Your task to perform on an android device: turn vacation reply on in the gmail app Image 0: 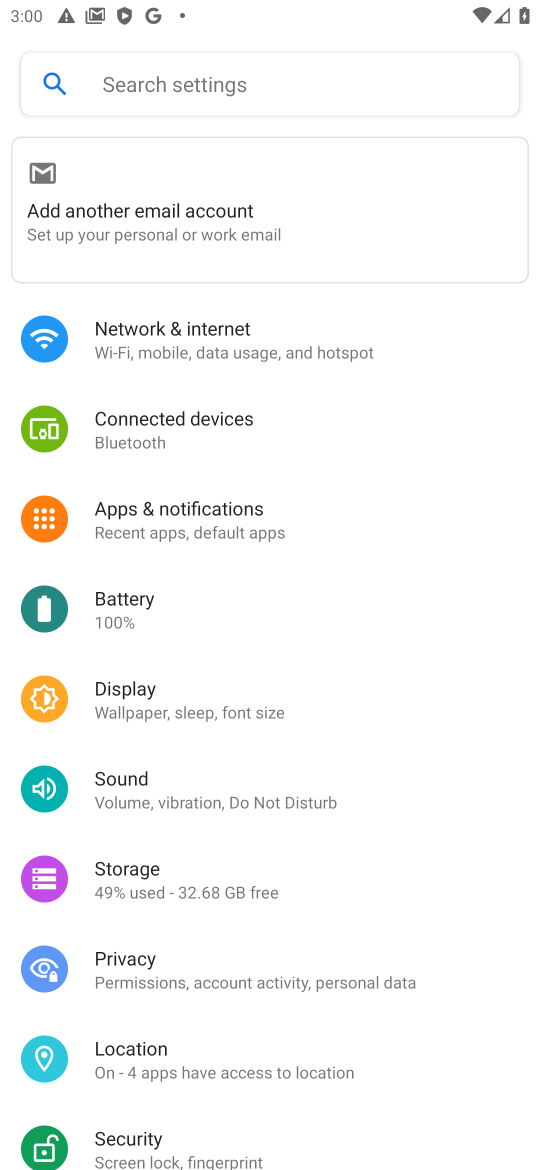
Step 0: press home button
Your task to perform on an android device: turn vacation reply on in the gmail app Image 1: 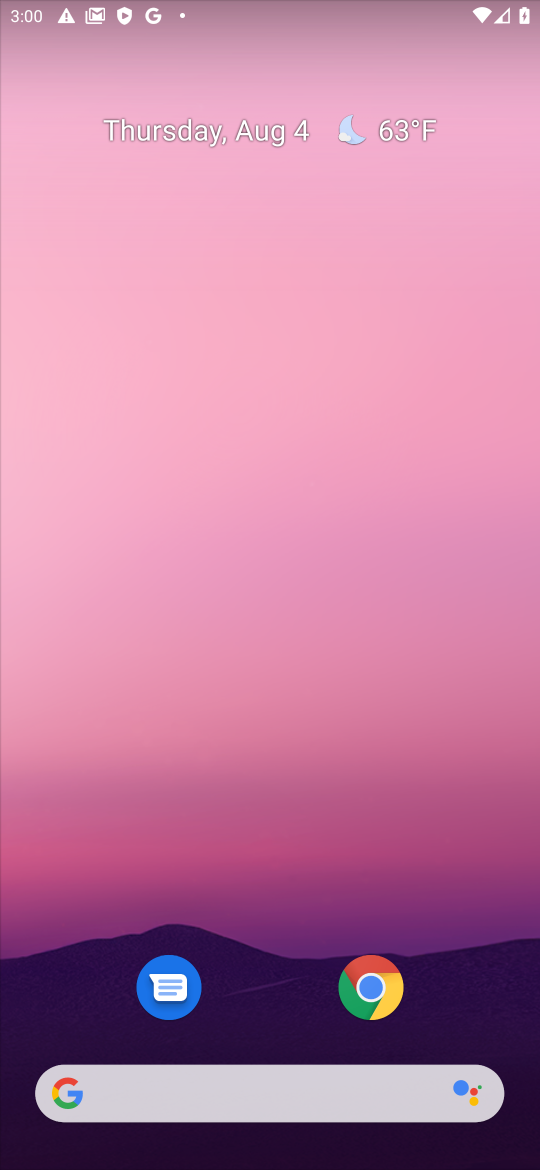
Step 1: drag from (240, 964) to (302, 327)
Your task to perform on an android device: turn vacation reply on in the gmail app Image 2: 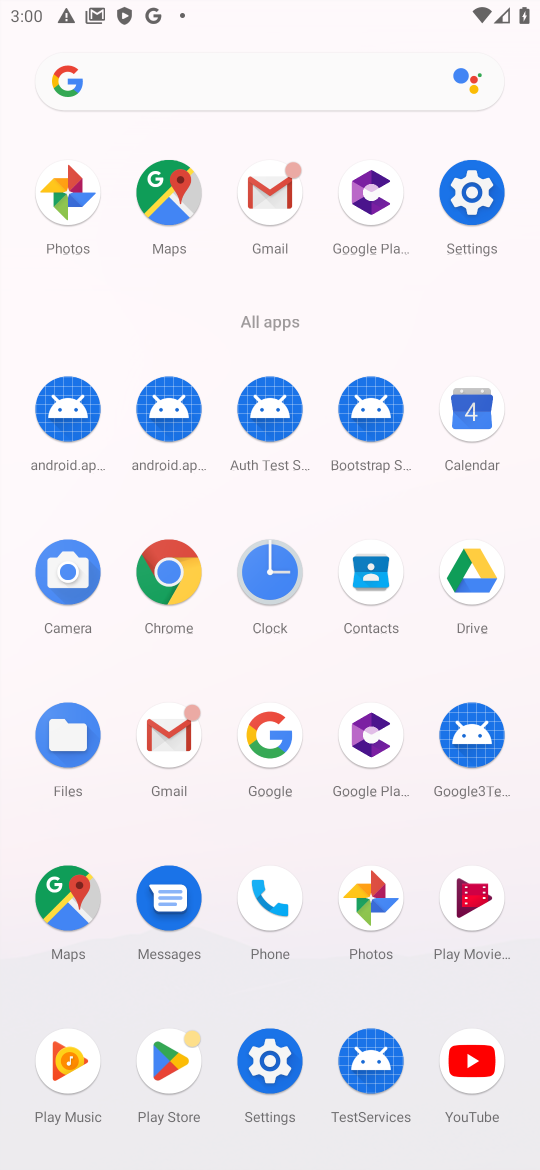
Step 2: click (173, 743)
Your task to perform on an android device: turn vacation reply on in the gmail app Image 3: 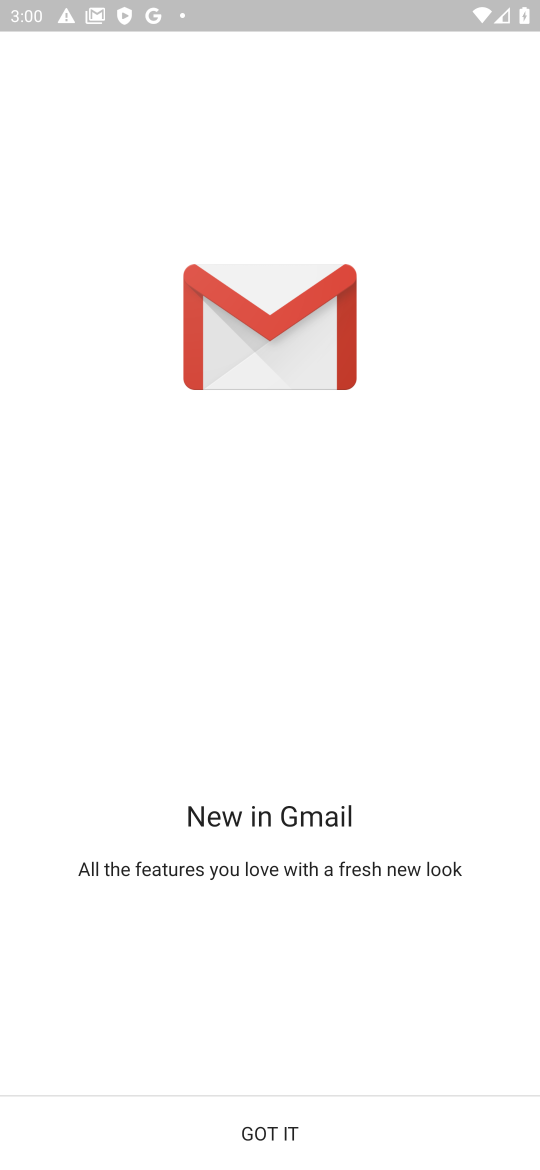
Step 3: click (282, 1139)
Your task to perform on an android device: turn vacation reply on in the gmail app Image 4: 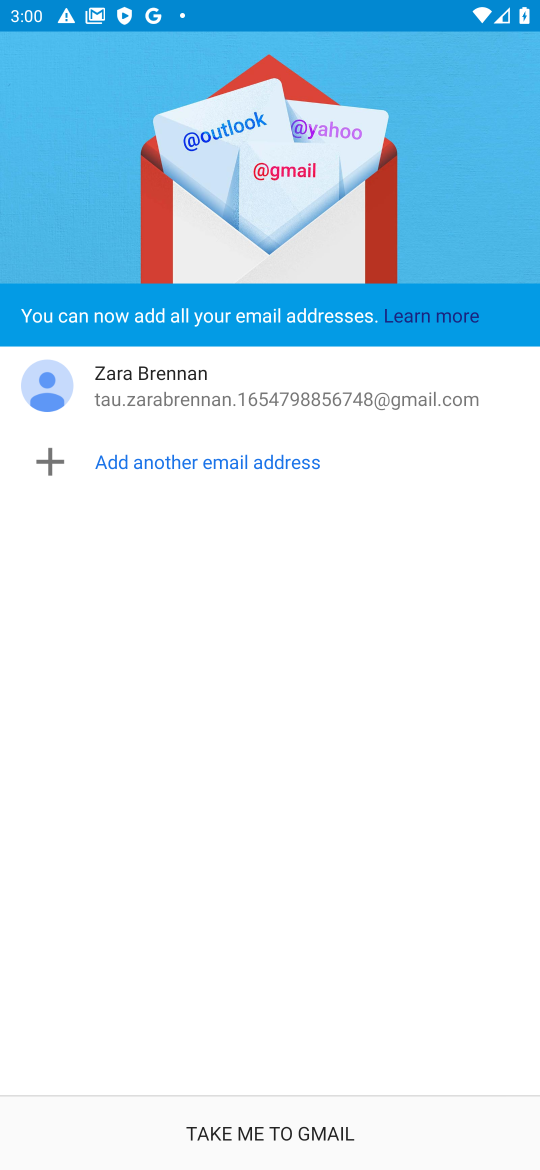
Step 4: click (262, 1119)
Your task to perform on an android device: turn vacation reply on in the gmail app Image 5: 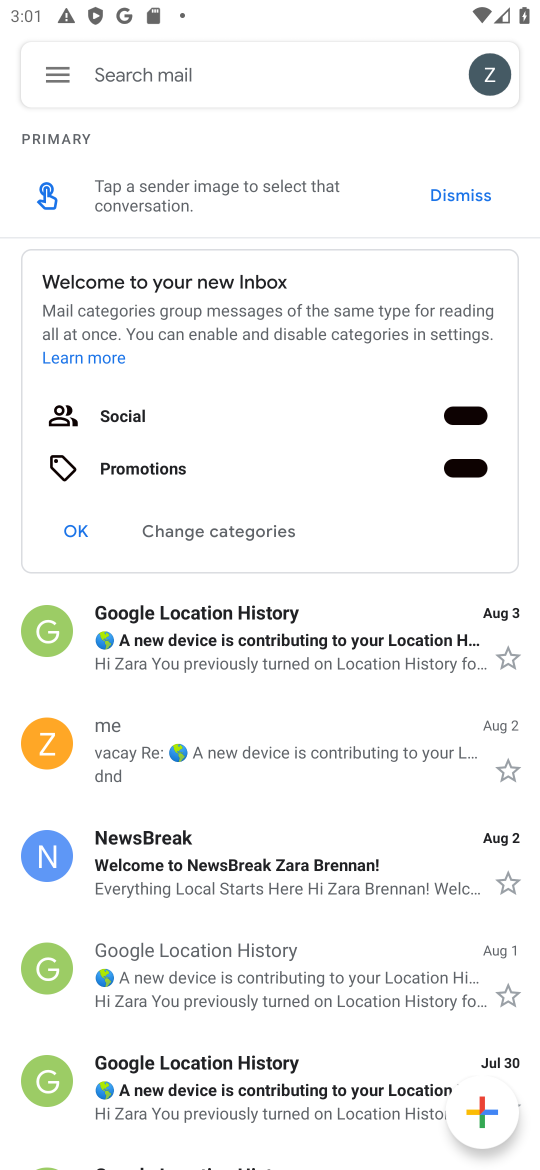
Step 5: click (262, 1119)
Your task to perform on an android device: turn vacation reply on in the gmail app Image 6: 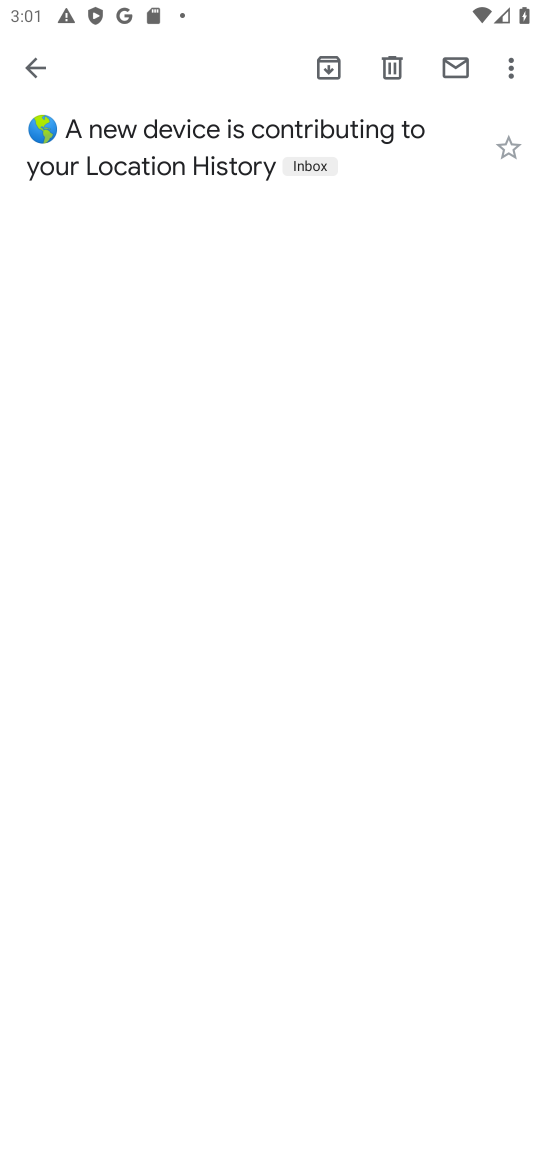
Step 6: press back button
Your task to perform on an android device: turn vacation reply on in the gmail app Image 7: 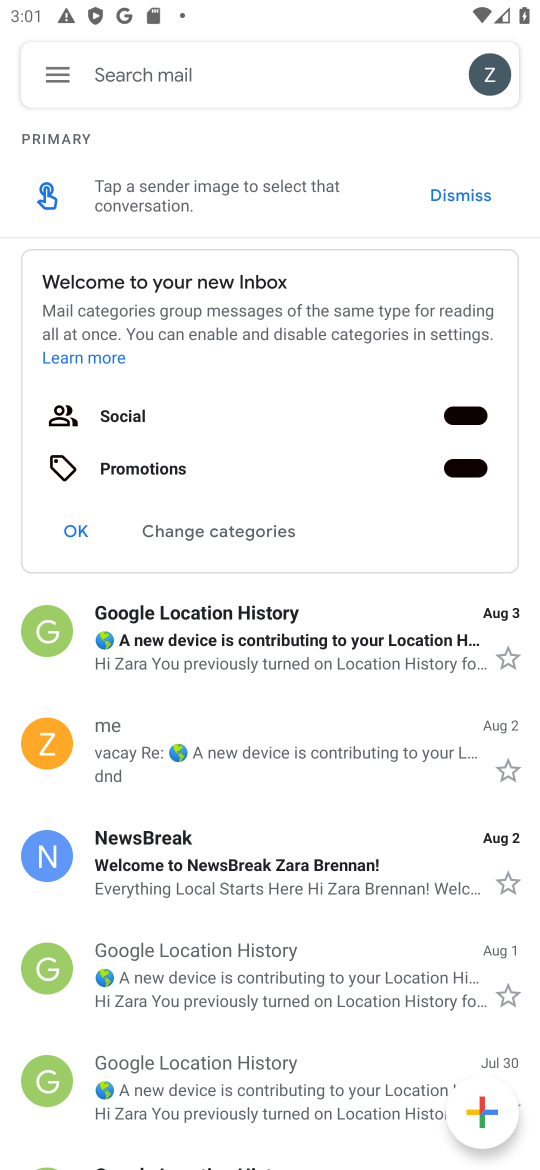
Step 7: click (45, 76)
Your task to perform on an android device: turn vacation reply on in the gmail app Image 8: 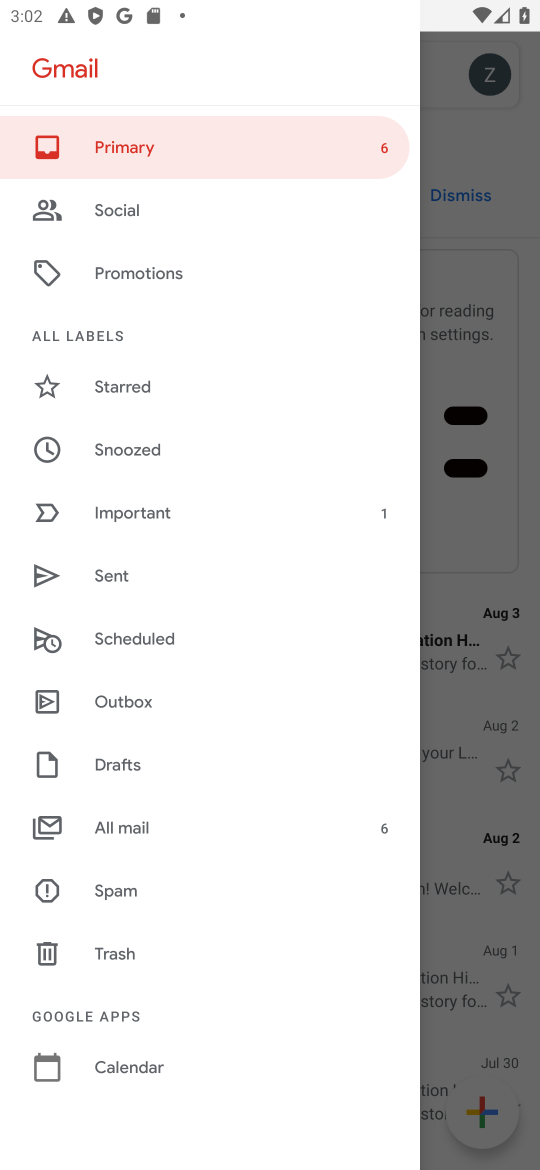
Step 8: click (215, 313)
Your task to perform on an android device: turn vacation reply on in the gmail app Image 9: 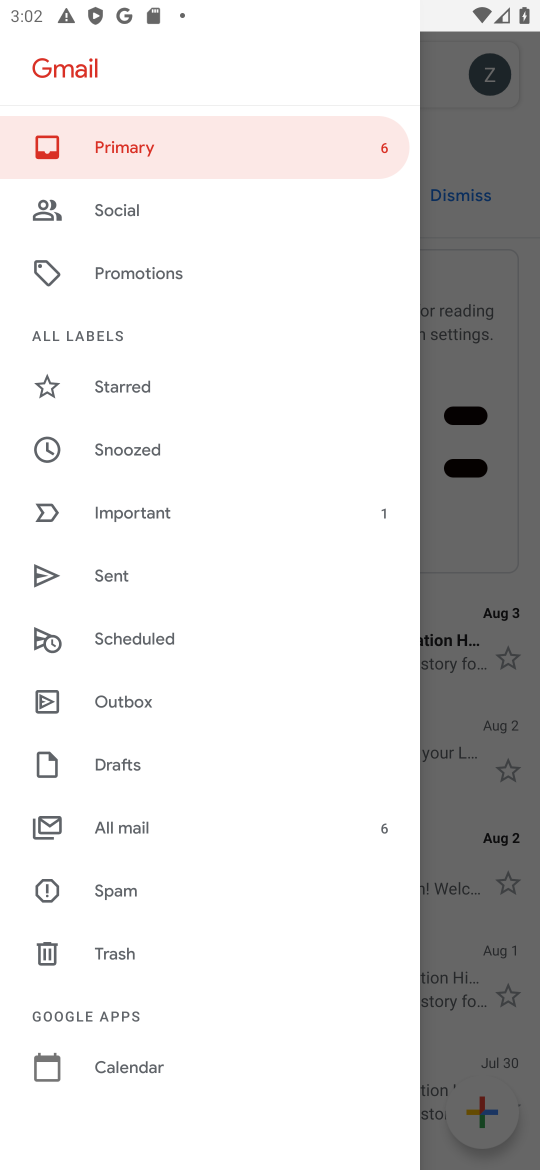
Step 9: drag from (162, 1026) to (178, 588)
Your task to perform on an android device: turn vacation reply on in the gmail app Image 10: 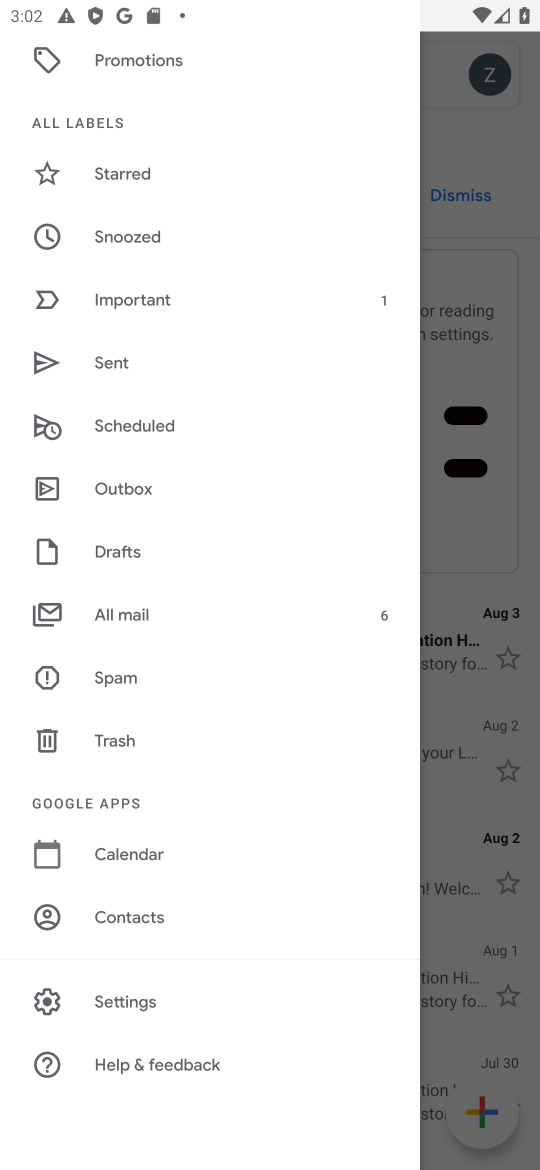
Step 10: click (140, 999)
Your task to perform on an android device: turn vacation reply on in the gmail app Image 11: 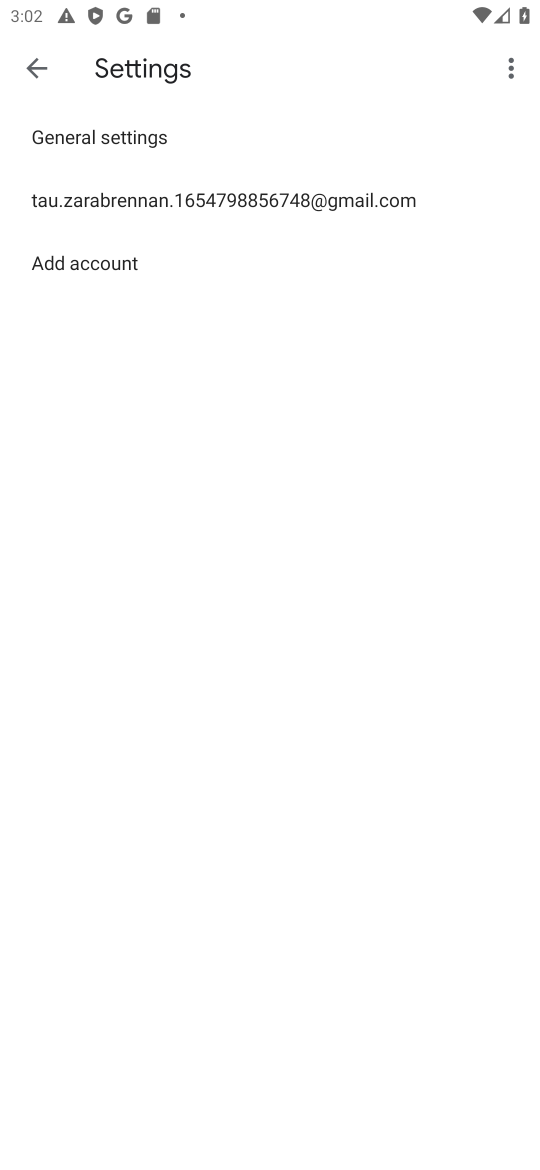
Step 11: click (150, 197)
Your task to perform on an android device: turn vacation reply on in the gmail app Image 12: 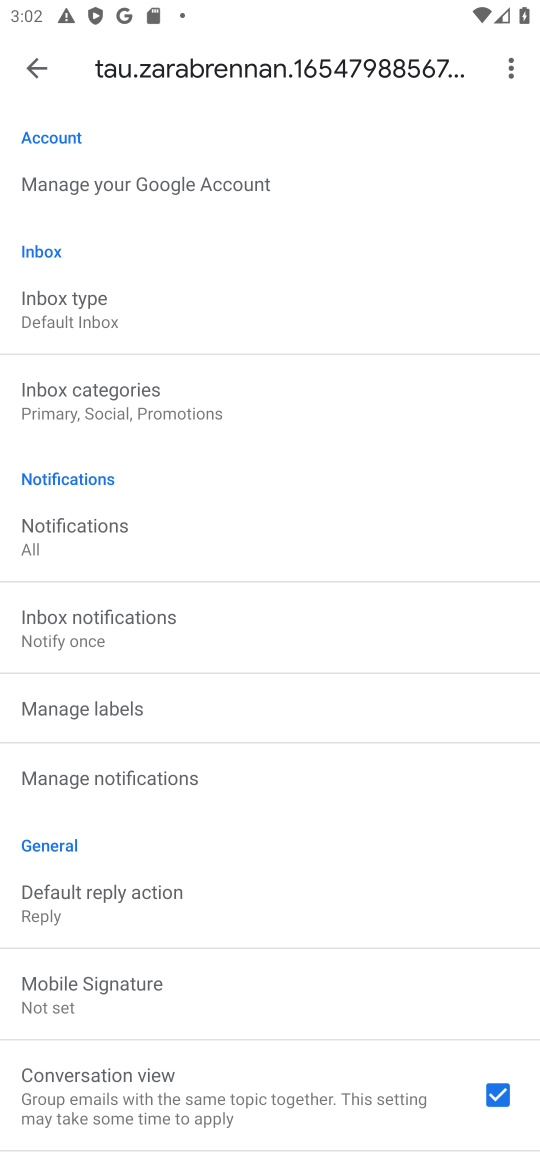
Step 12: drag from (149, 1061) to (221, 249)
Your task to perform on an android device: turn vacation reply on in the gmail app Image 13: 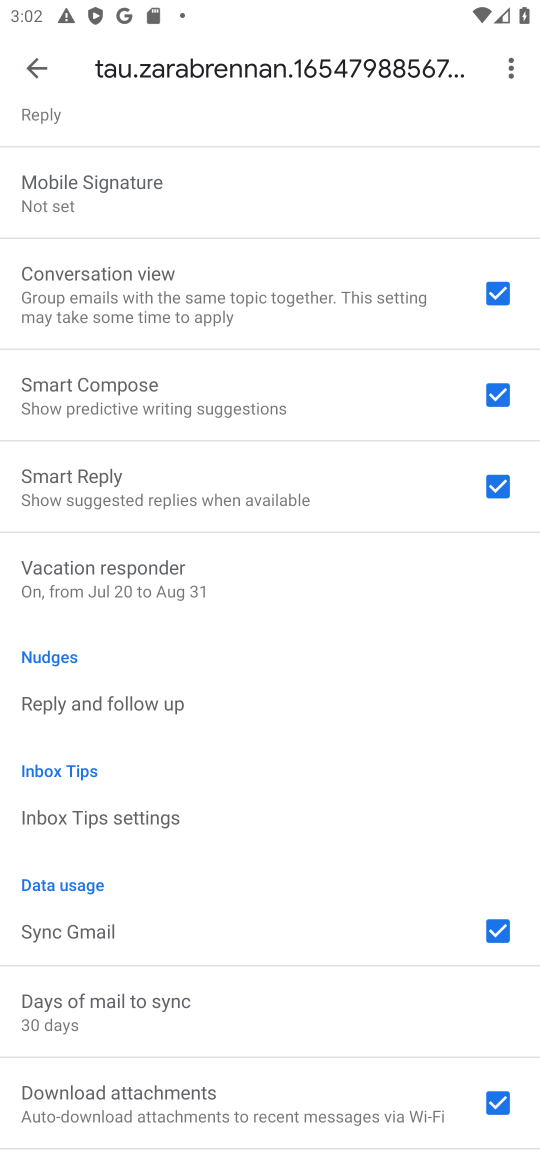
Step 13: drag from (201, 1024) to (269, 345)
Your task to perform on an android device: turn vacation reply on in the gmail app Image 14: 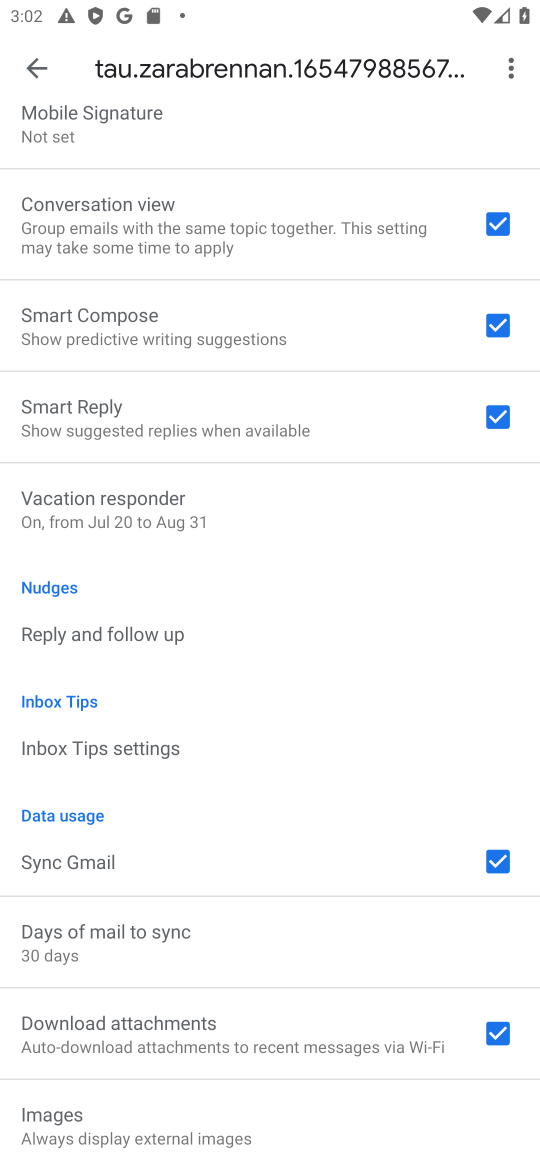
Step 14: drag from (286, 634) to (339, 518)
Your task to perform on an android device: turn vacation reply on in the gmail app Image 15: 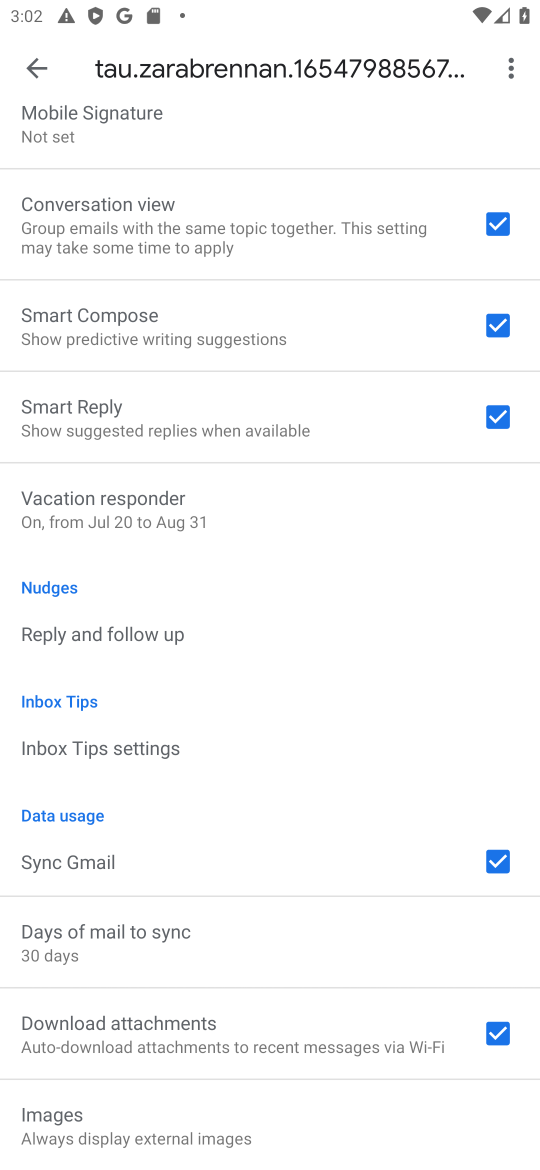
Step 15: drag from (269, 999) to (279, 607)
Your task to perform on an android device: turn vacation reply on in the gmail app Image 16: 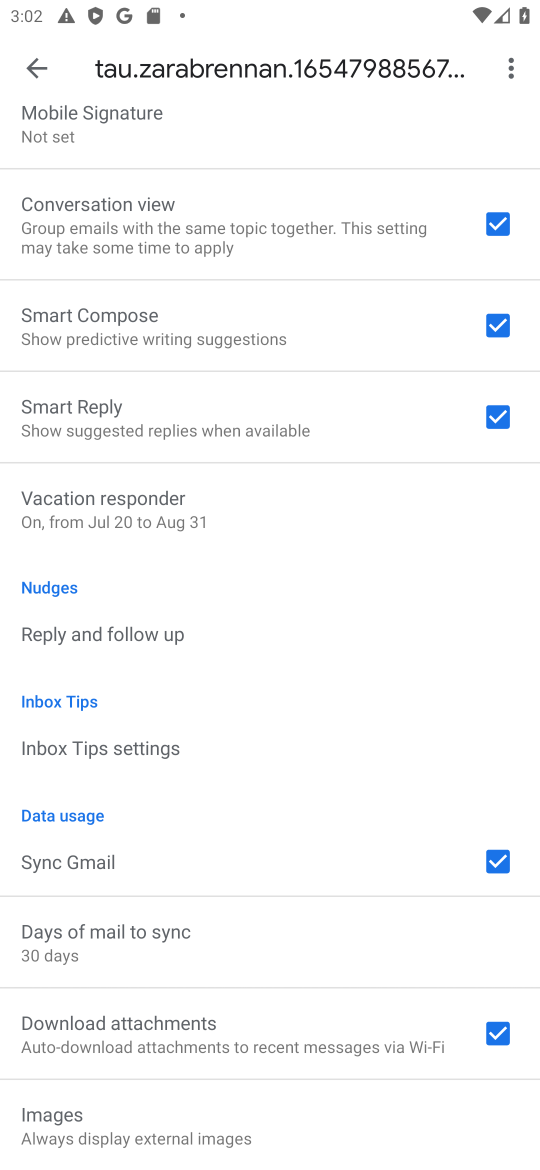
Step 16: drag from (259, 940) to (330, 553)
Your task to perform on an android device: turn vacation reply on in the gmail app Image 17: 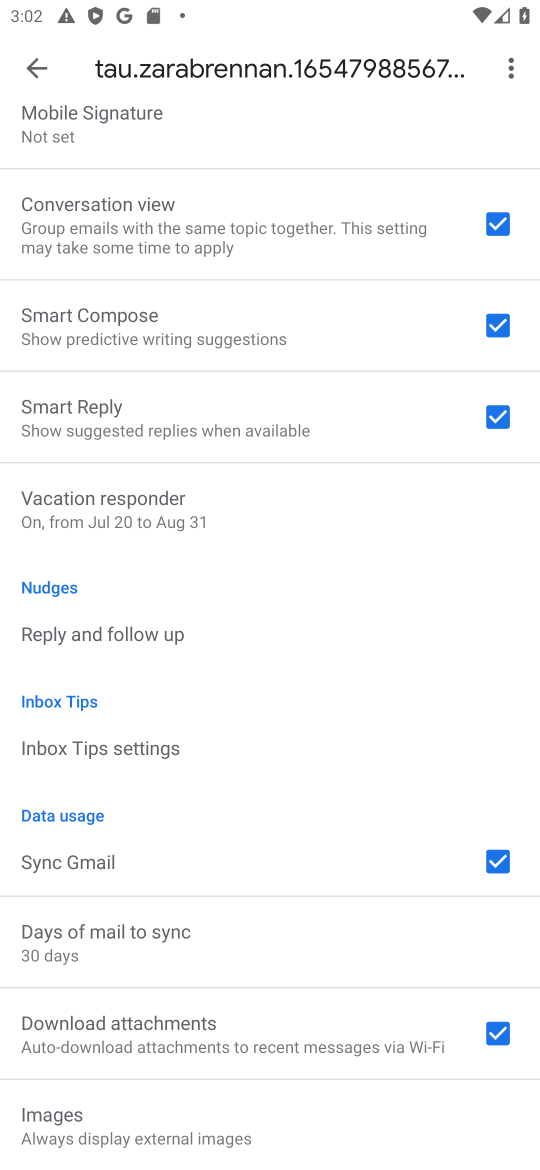
Step 17: drag from (330, 340) to (294, 797)
Your task to perform on an android device: turn vacation reply on in the gmail app Image 18: 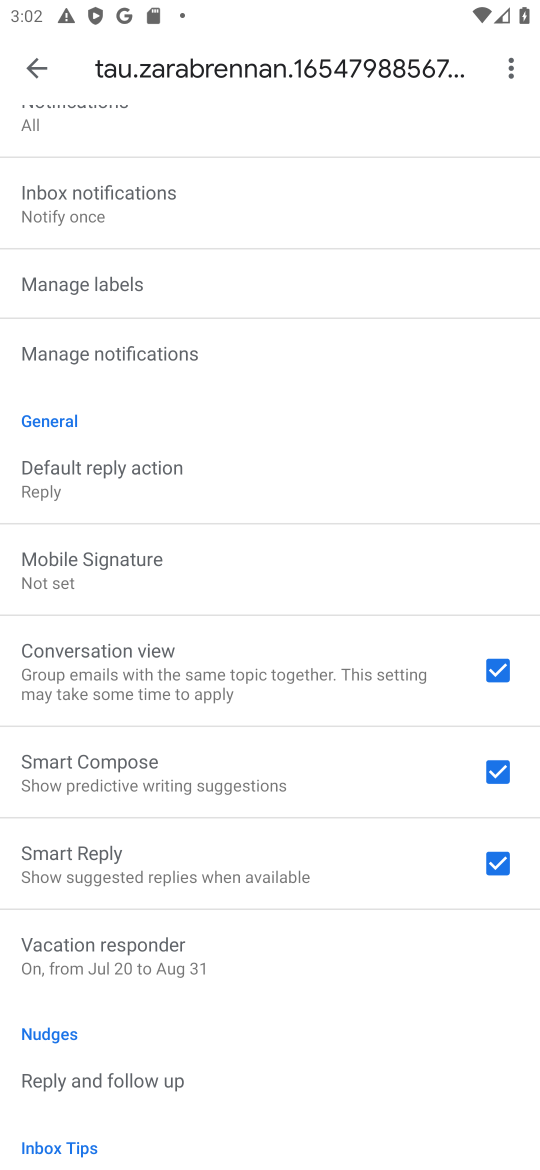
Step 18: drag from (170, 904) to (255, 492)
Your task to perform on an android device: turn vacation reply on in the gmail app Image 19: 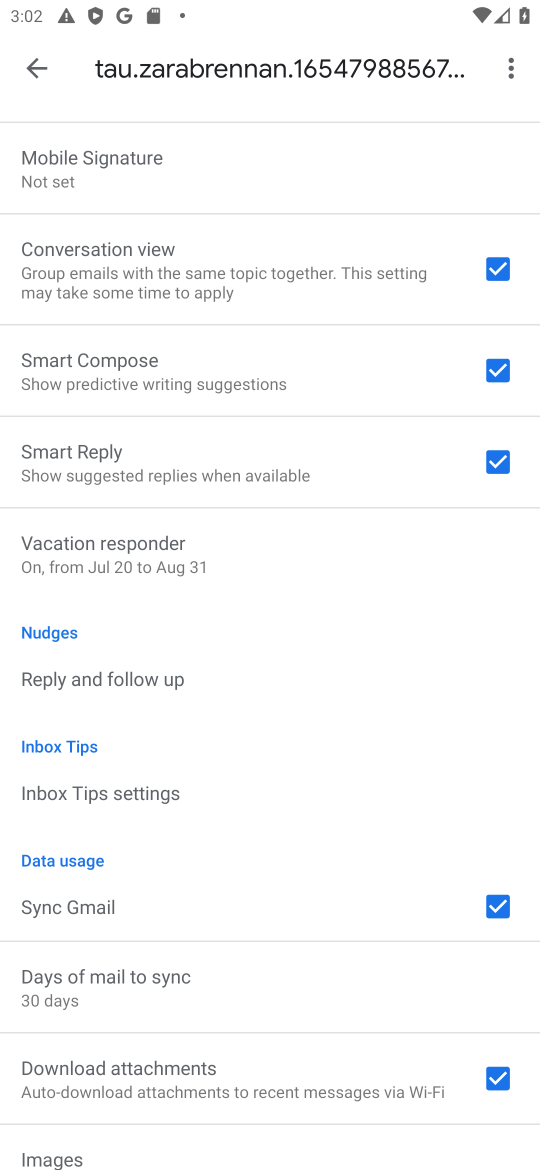
Step 19: drag from (163, 420) to (185, 313)
Your task to perform on an android device: turn vacation reply on in the gmail app Image 20: 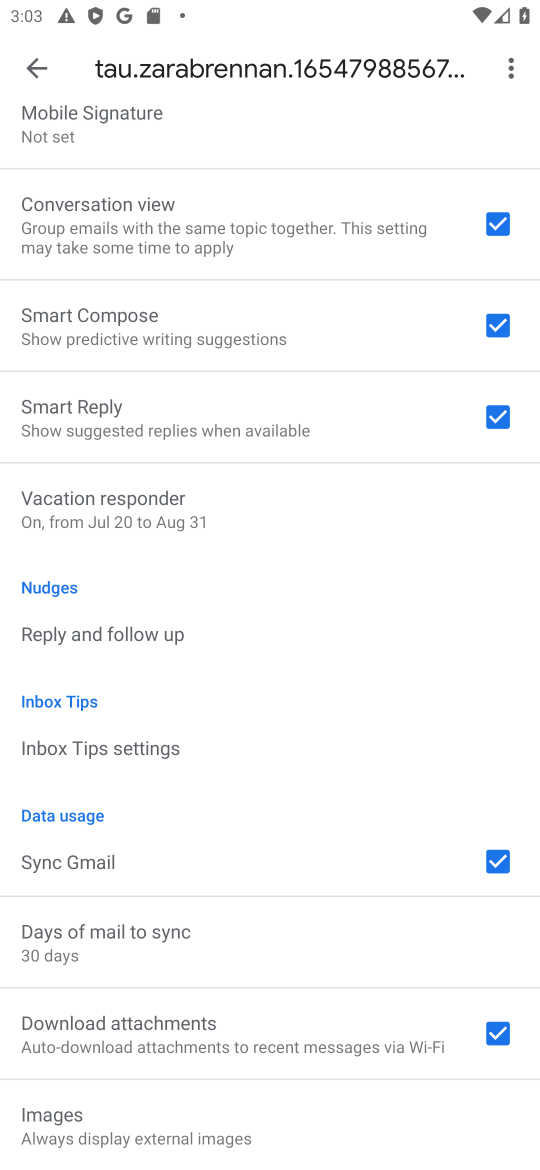
Step 20: click (149, 535)
Your task to perform on an android device: turn vacation reply on in the gmail app Image 21: 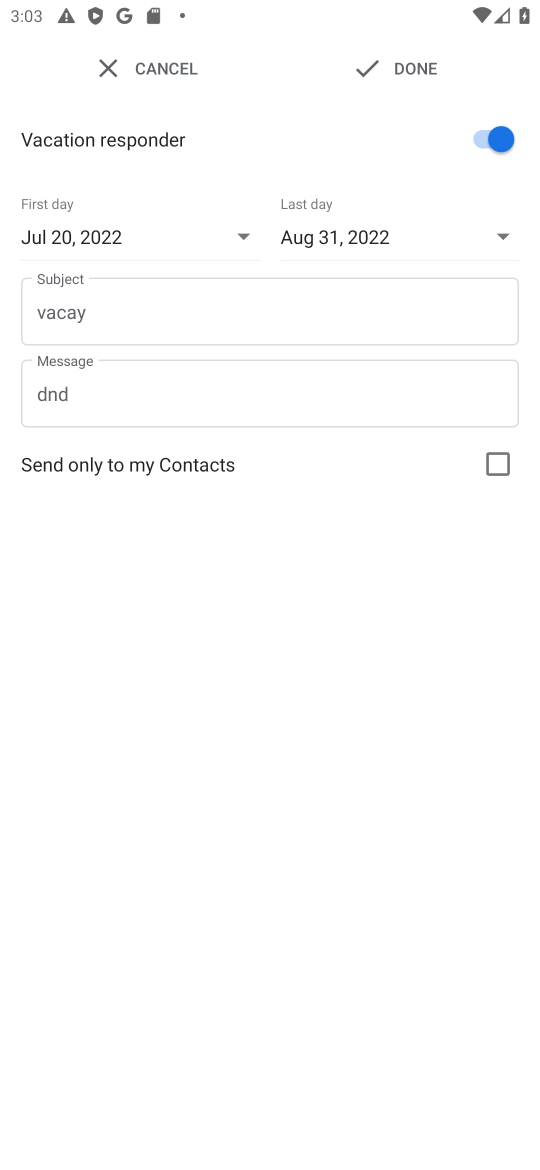
Step 21: click (436, 51)
Your task to perform on an android device: turn vacation reply on in the gmail app Image 22: 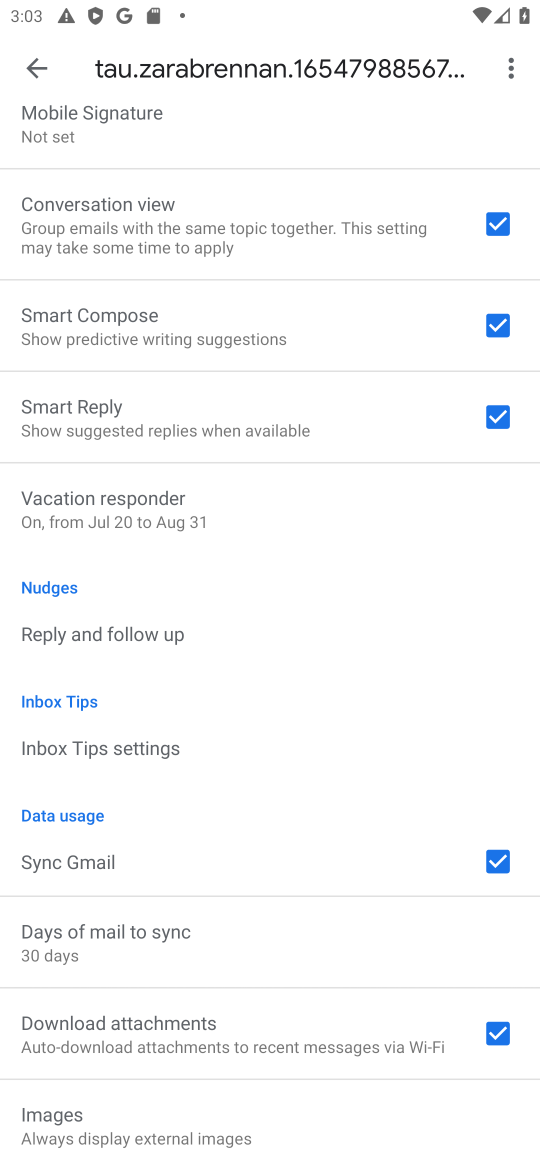
Step 22: task complete